Your task to perform on an android device: Open the calendar app, open the side menu, and click the "Day" option Image 0: 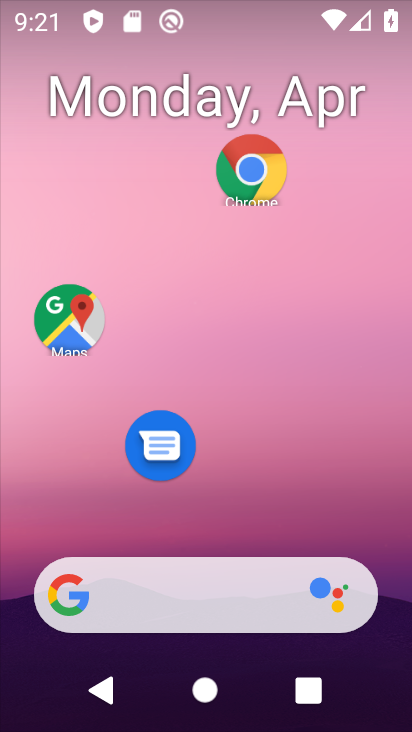
Step 0: drag from (227, 536) to (203, 67)
Your task to perform on an android device: Open the calendar app, open the side menu, and click the "Day" option Image 1: 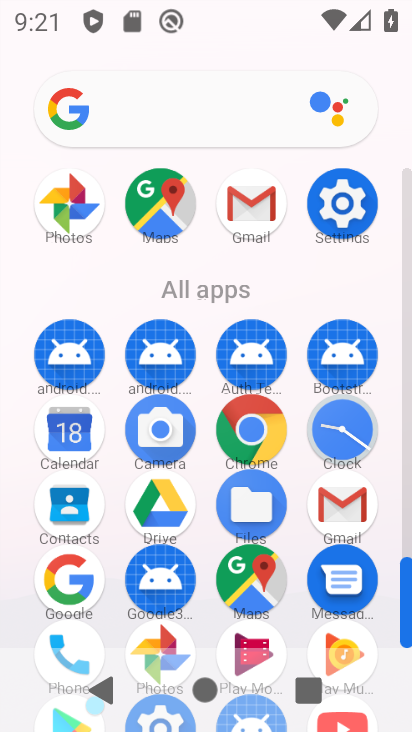
Step 1: click (76, 431)
Your task to perform on an android device: Open the calendar app, open the side menu, and click the "Day" option Image 2: 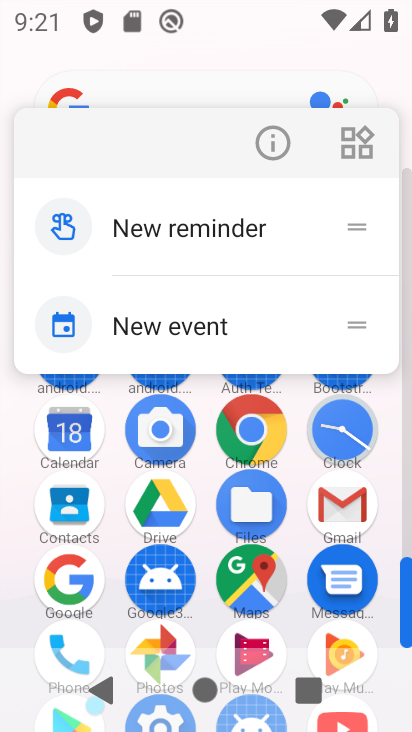
Step 2: click (76, 431)
Your task to perform on an android device: Open the calendar app, open the side menu, and click the "Day" option Image 3: 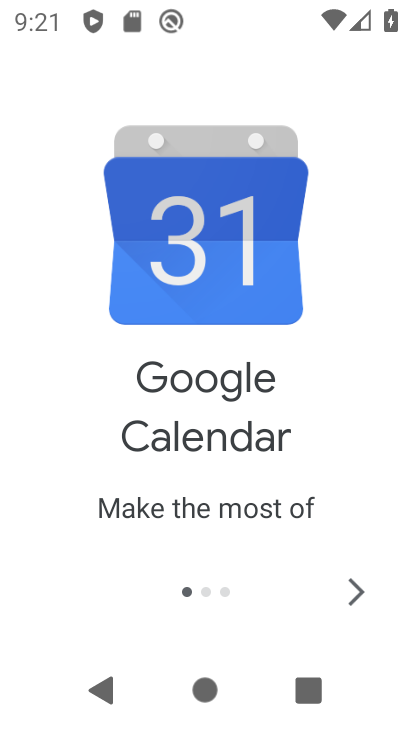
Step 3: click (348, 590)
Your task to perform on an android device: Open the calendar app, open the side menu, and click the "Day" option Image 4: 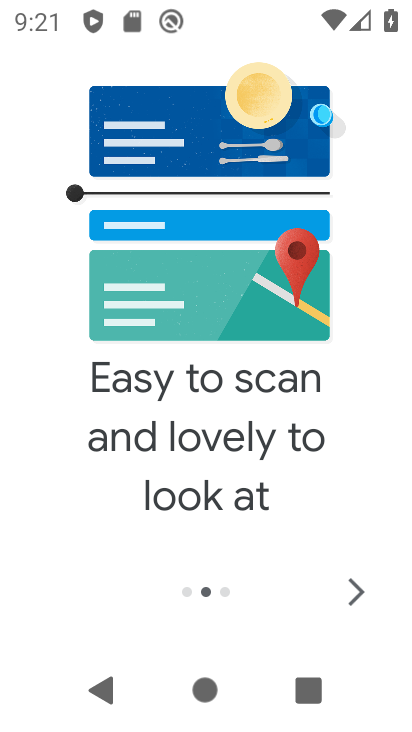
Step 4: click (348, 590)
Your task to perform on an android device: Open the calendar app, open the side menu, and click the "Day" option Image 5: 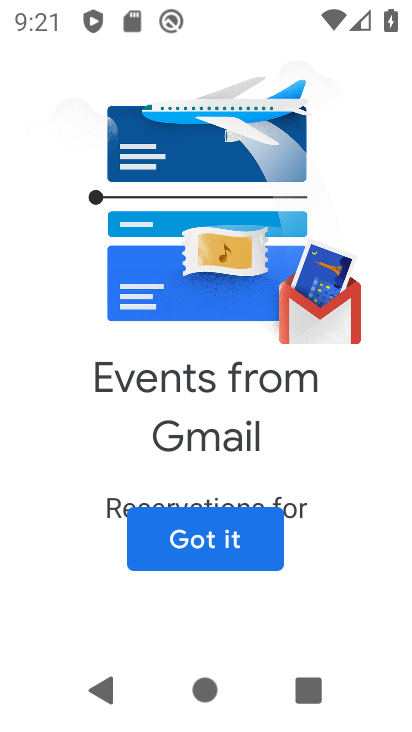
Step 5: click (202, 557)
Your task to perform on an android device: Open the calendar app, open the side menu, and click the "Day" option Image 6: 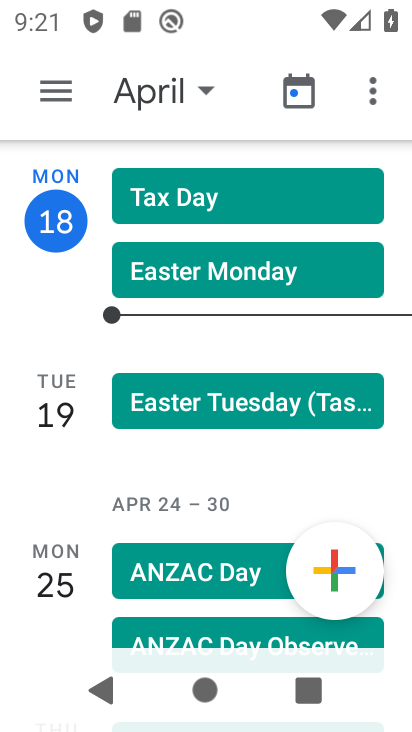
Step 6: click (56, 97)
Your task to perform on an android device: Open the calendar app, open the side menu, and click the "Day" option Image 7: 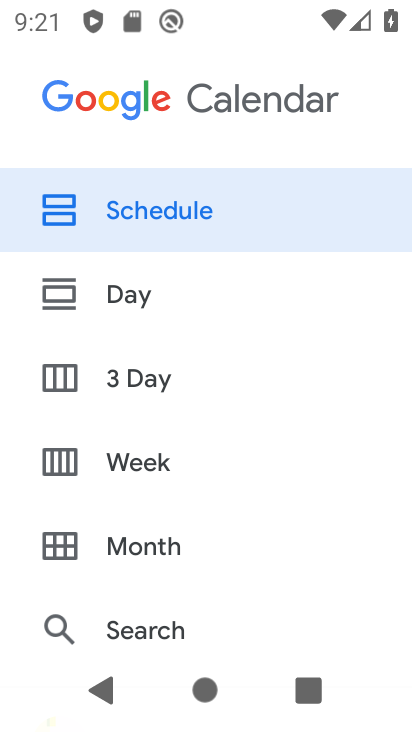
Step 7: click (144, 294)
Your task to perform on an android device: Open the calendar app, open the side menu, and click the "Day" option Image 8: 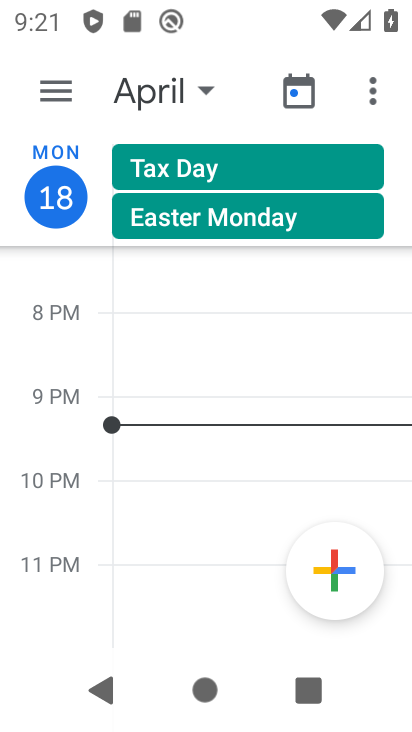
Step 8: click (65, 96)
Your task to perform on an android device: Open the calendar app, open the side menu, and click the "Day" option Image 9: 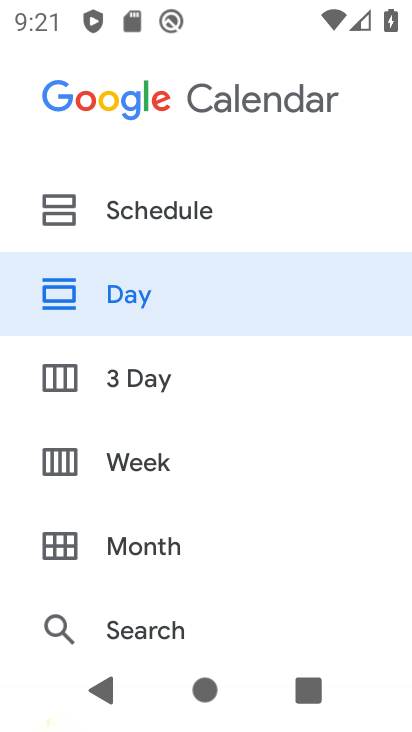
Step 9: task complete